Your task to perform on an android device: turn off location Image 0: 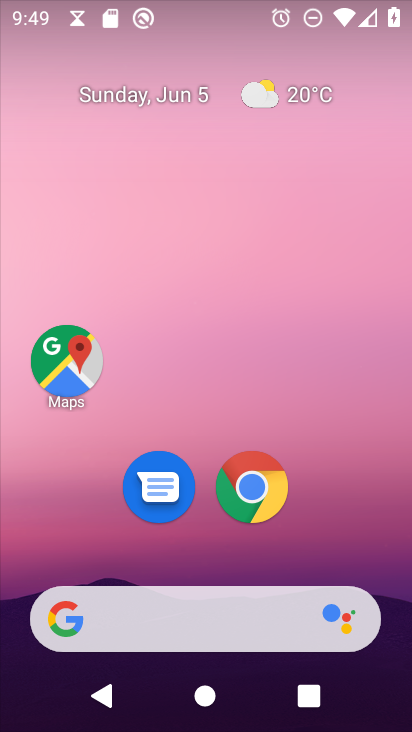
Step 0: drag from (304, 441) to (290, 173)
Your task to perform on an android device: turn off location Image 1: 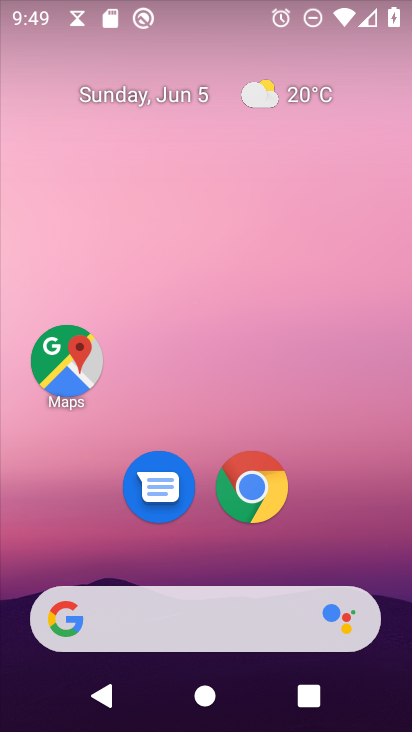
Step 1: drag from (230, 544) to (226, 89)
Your task to perform on an android device: turn off location Image 2: 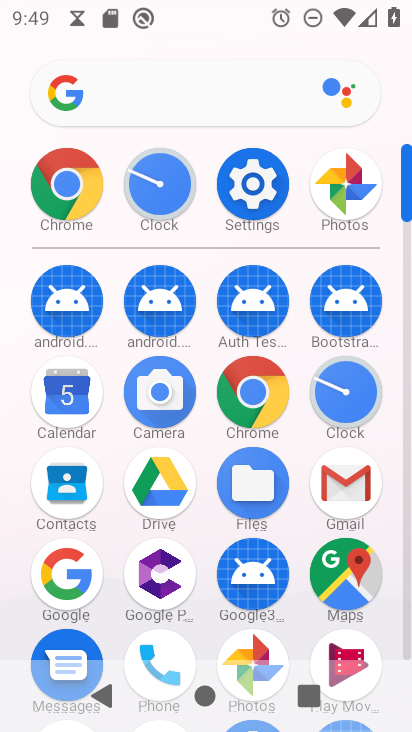
Step 2: click (261, 161)
Your task to perform on an android device: turn off location Image 3: 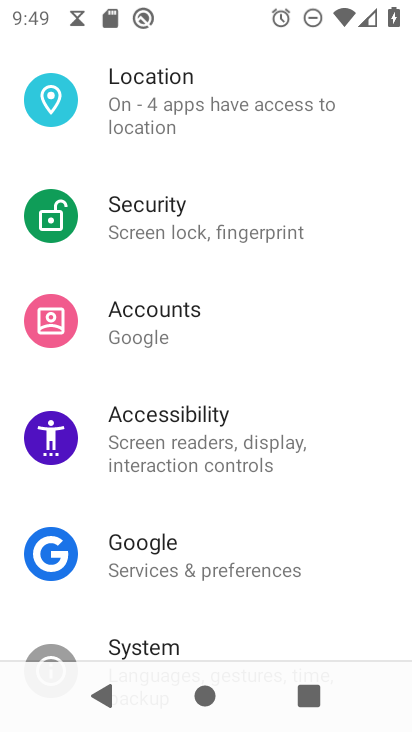
Step 3: click (138, 105)
Your task to perform on an android device: turn off location Image 4: 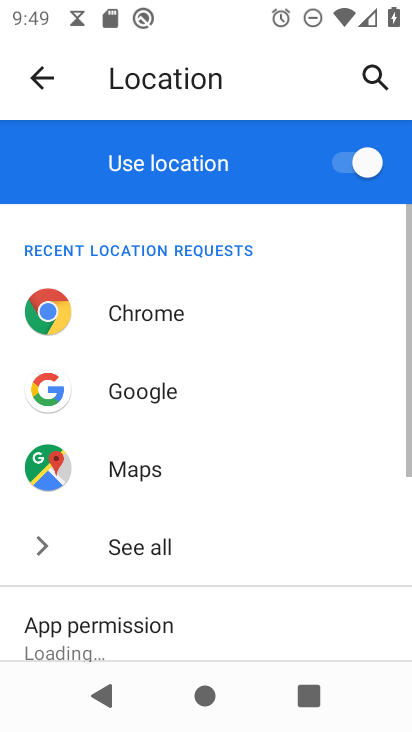
Step 4: click (352, 164)
Your task to perform on an android device: turn off location Image 5: 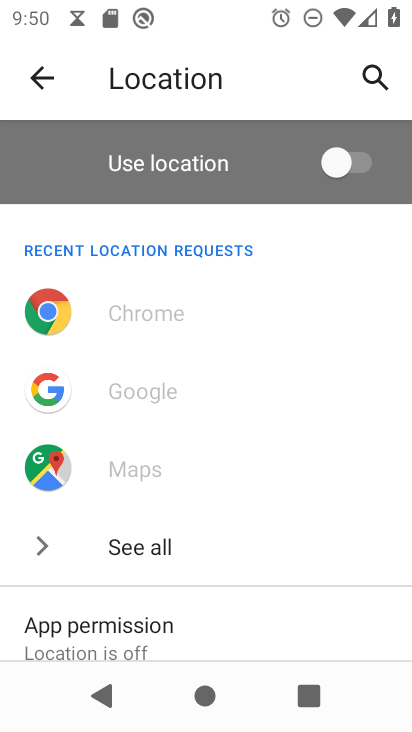
Step 5: task complete